Your task to perform on an android device: Open Yahoo.com Image 0: 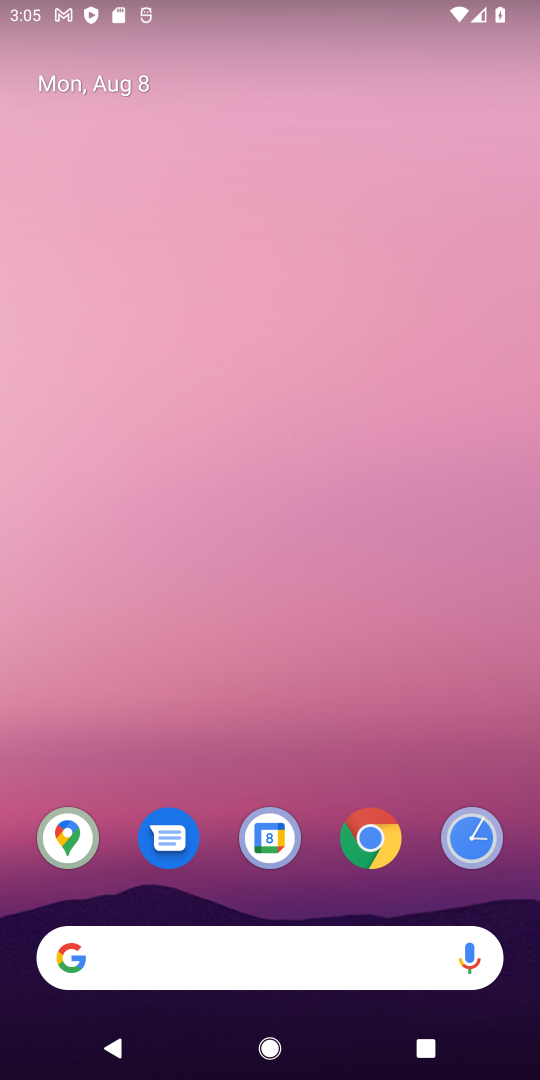
Step 0: click (372, 843)
Your task to perform on an android device: Open Yahoo.com Image 1: 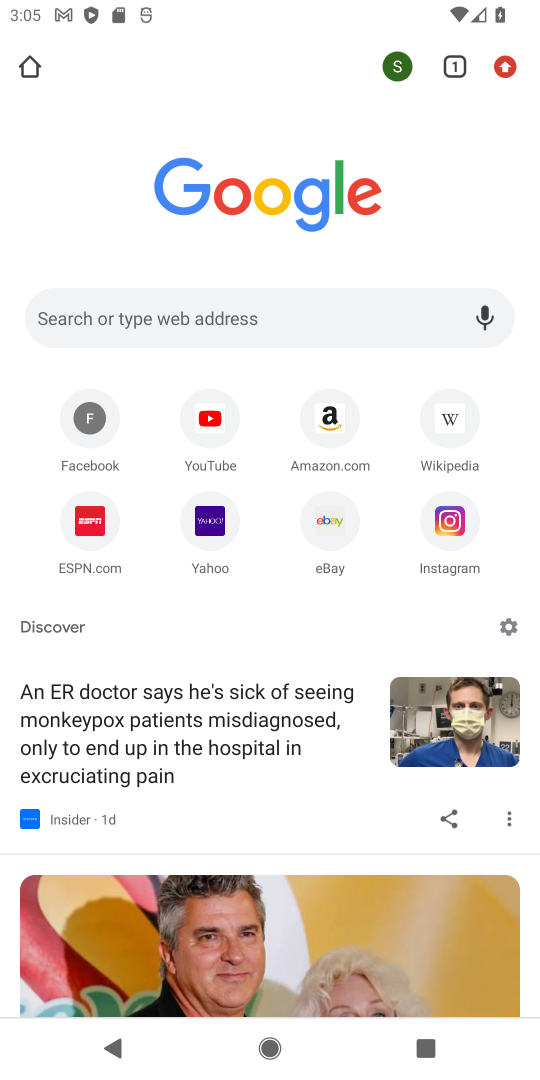
Step 1: click (212, 530)
Your task to perform on an android device: Open Yahoo.com Image 2: 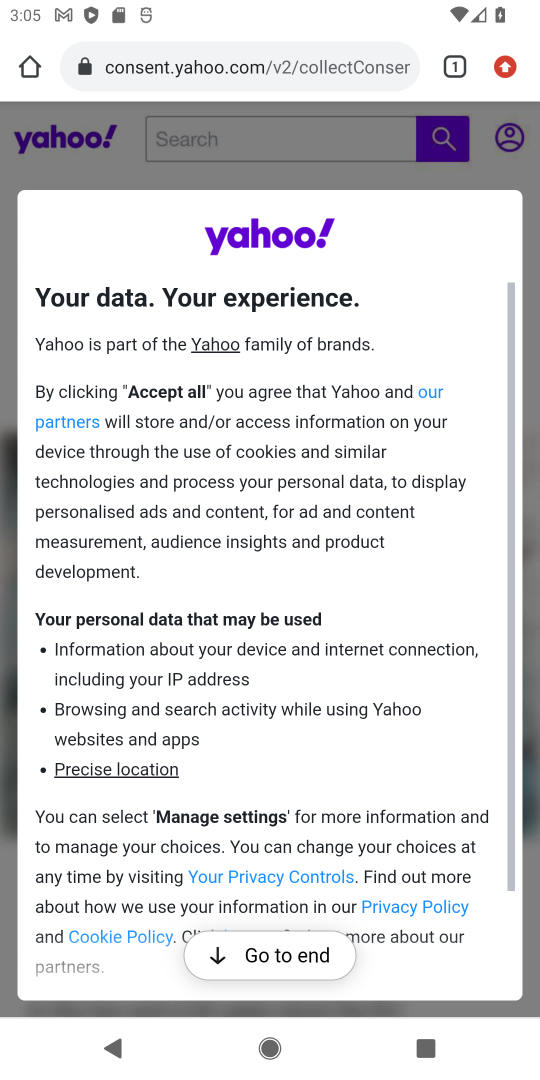
Step 2: click (295, 951)
Your task to perform on an android device: Open Yahoo.com Image 3: 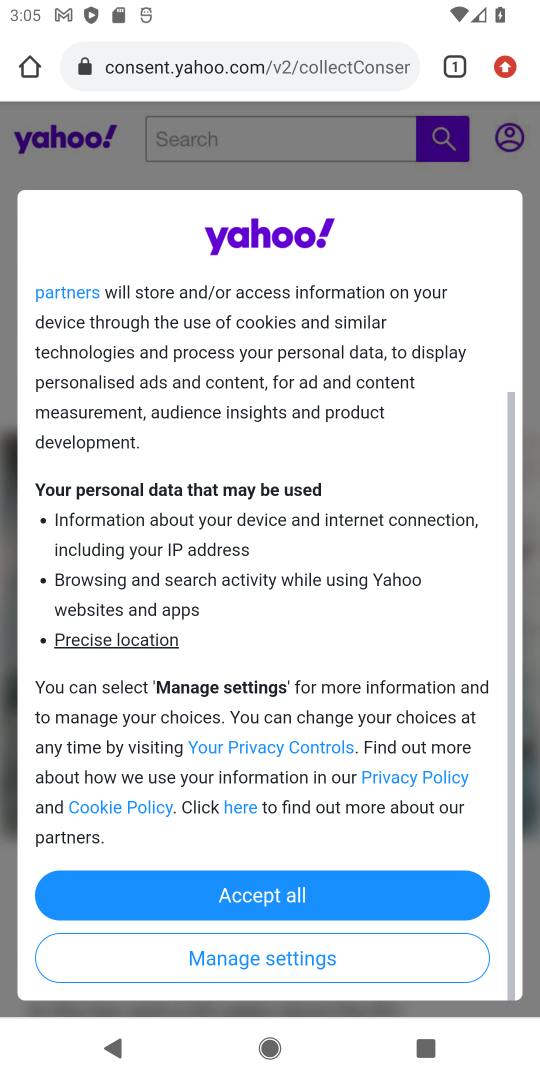
Step 3: click (269, 900)
Your task to perform on an android device: Open Yahoo.com Image 4: 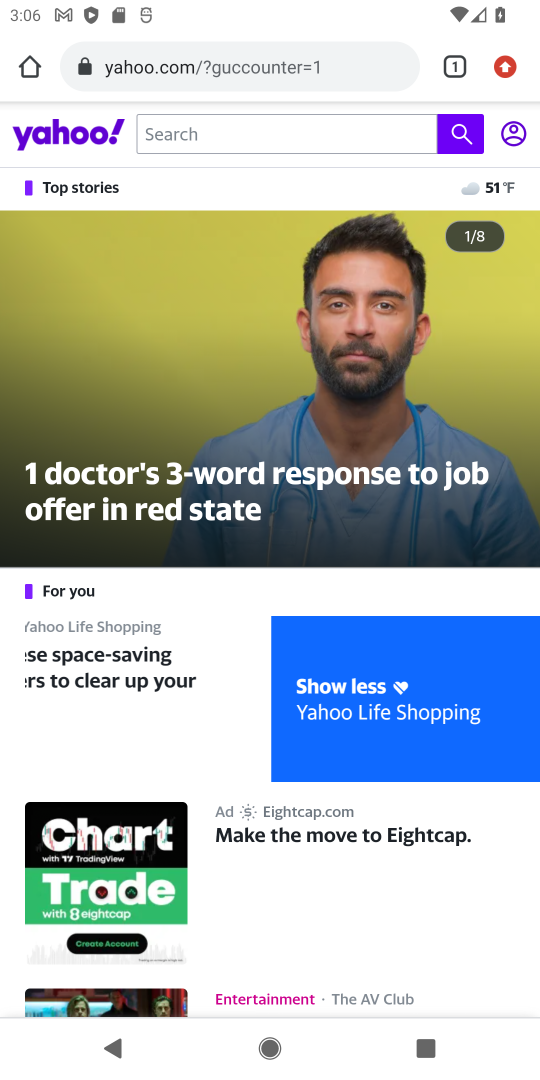
Step 4: task complete